Your task to perform on an android device: Open privacy settings Image 0: 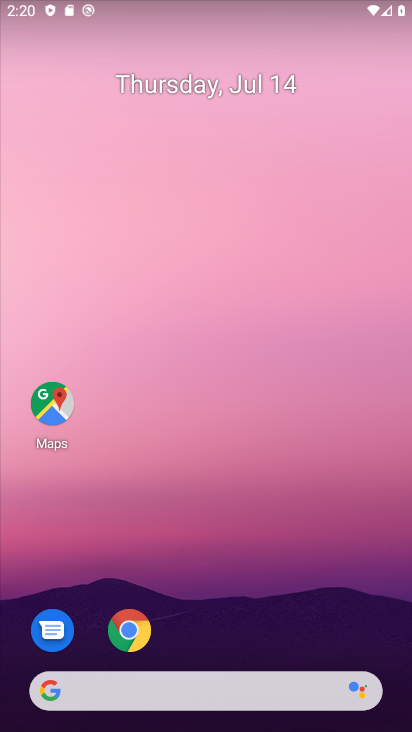
Step 0: drag from (213, 654) to (201, 56)
Your task to perform on an android device: Open privacy settings Image 1: 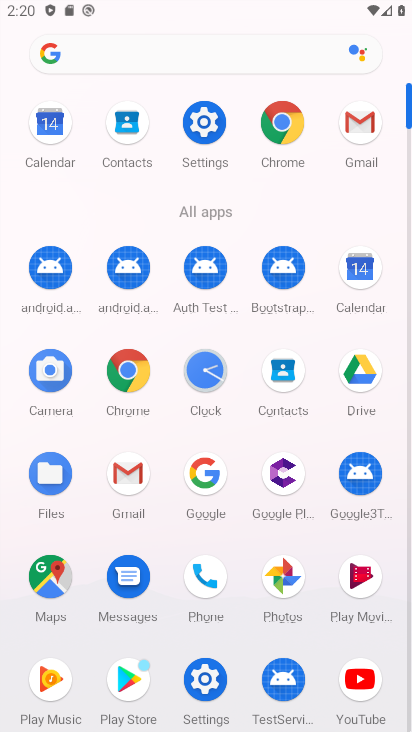
Step 1: click (198, 115)
Your task to perform on an android device: Open privacy settings Image 2: 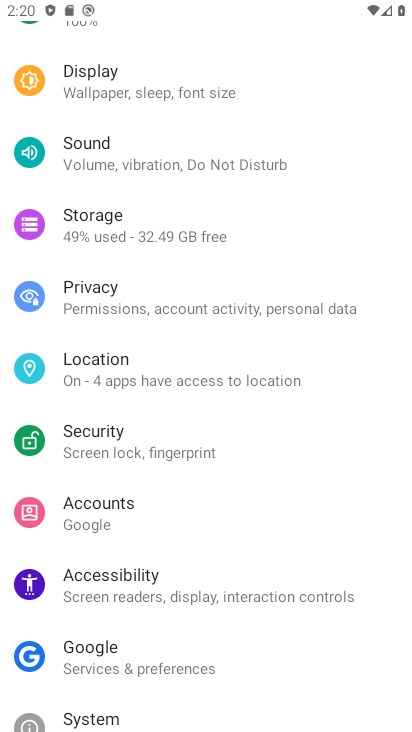
Step 2: click (128, 295)
Your task to perform on an android device: Open privacy settings Image 3: 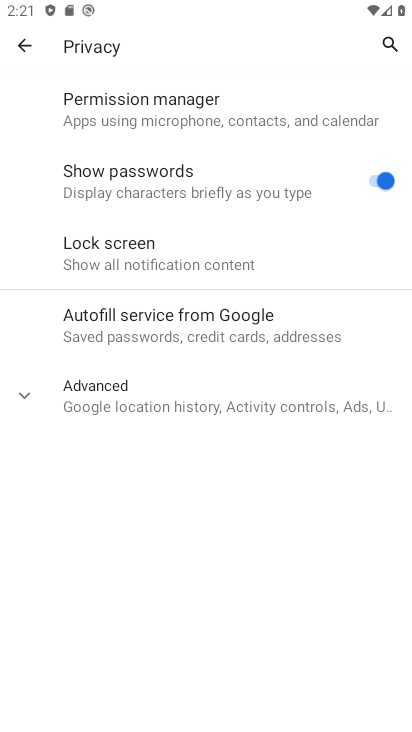
Step 3: click (23, 389)
Your task to perform on an android device: Open privacy settings Image 4: 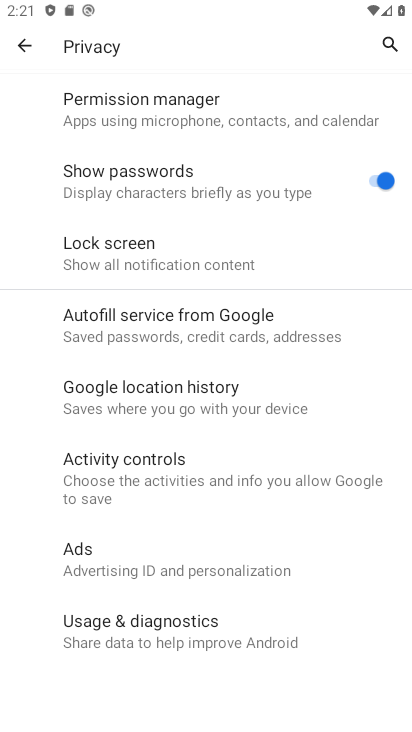
Step 4: task complete